Your task to perform on an android device: make emails show in primary in the gmail app Image 0: 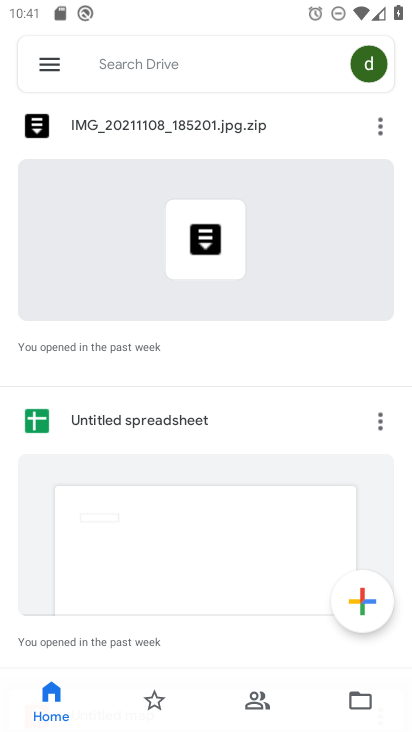
Step 0: press home button
Your task to perform on an android device: make emails show in primary in the gmail app Image 1: 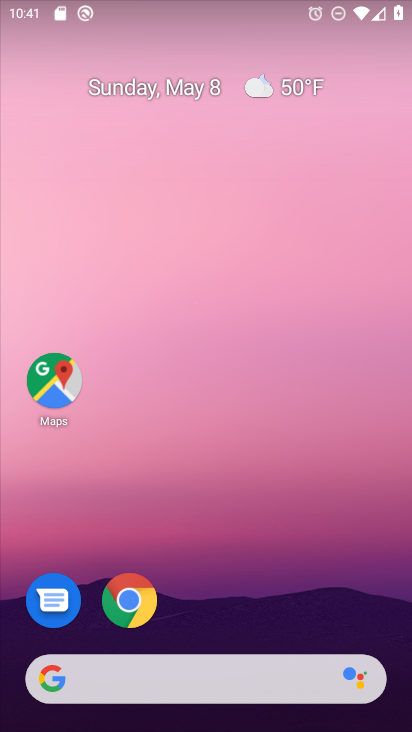
Step 1: drag from (230, 710) to (240, 146)
Your task to perform on an android device: make emails show in primary in the gmail app Image 2: 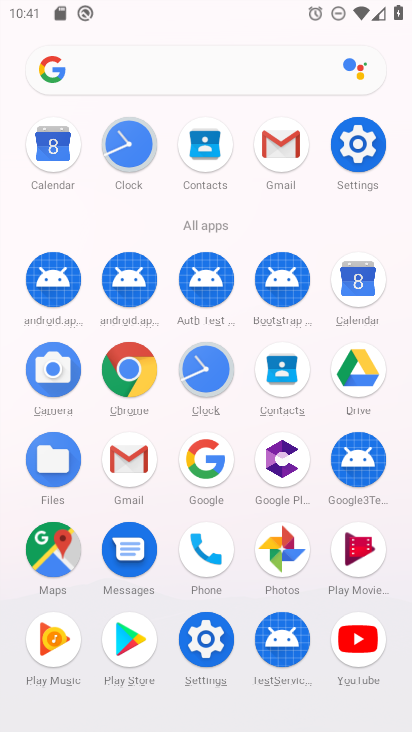
Step 2: click (134, 456)
Your task to perform on an android device: make emails show in primary in the gmail app Image 3: 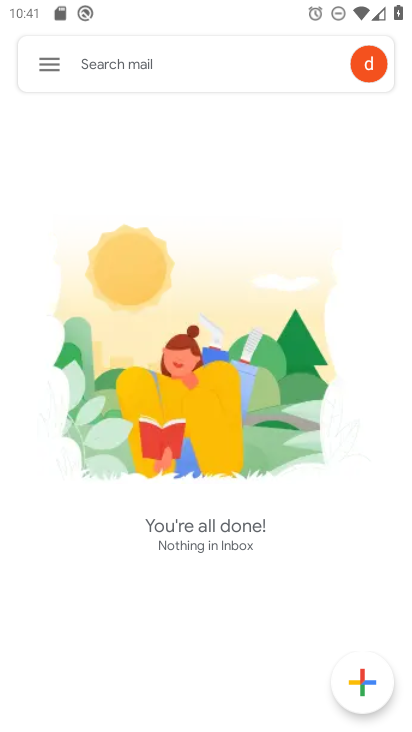
Step 3: click (49, 66)
Your task to perform on an android device: make emails show in primary in the gmail app Image 4: 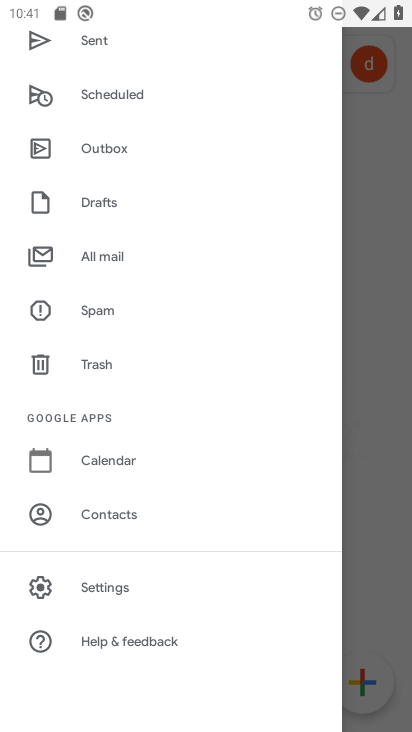
Step 4: click (116, 585)
Your task to perform on an android device: make emails show in primary in the gmail app Image 5: 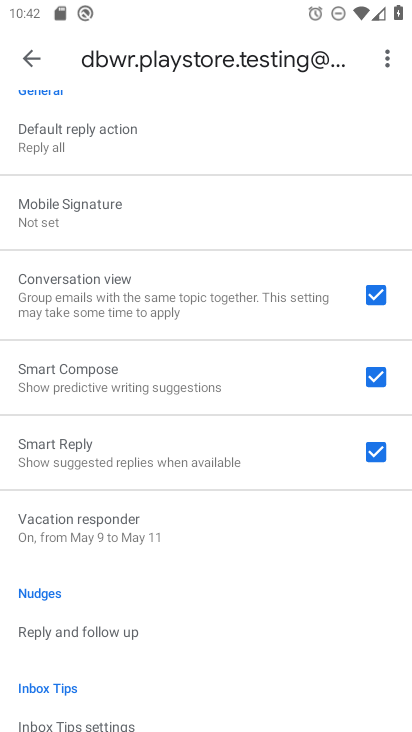
Step 5: drag from (199, 162) to (184, 561)
Your task to perform on an android device: make emails show in primary in the gmail app Image 6: 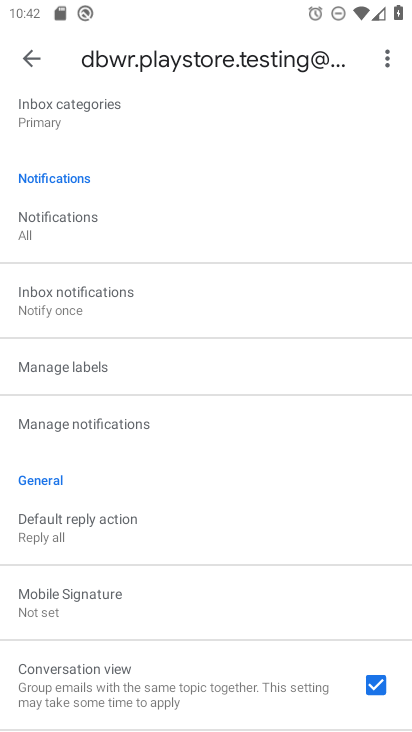
Step 6: click (77, 102)
Your task to perform on an android device: make emails show in primary in the gmail app Image 7: 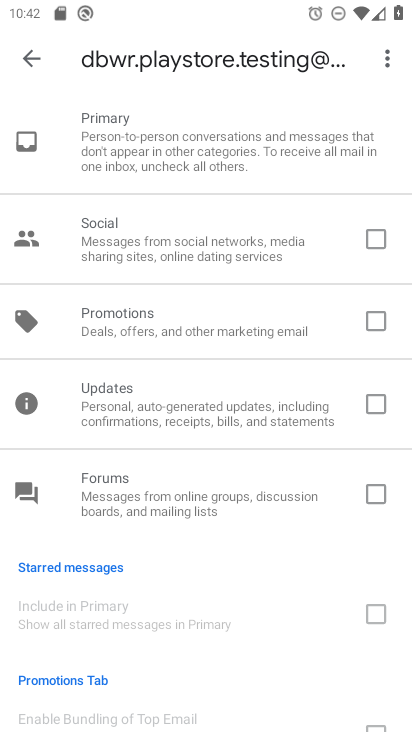
Step 7: click (33, 60)
Your task to perform on an android device: make emails show in primary in the gmail app Image 8: 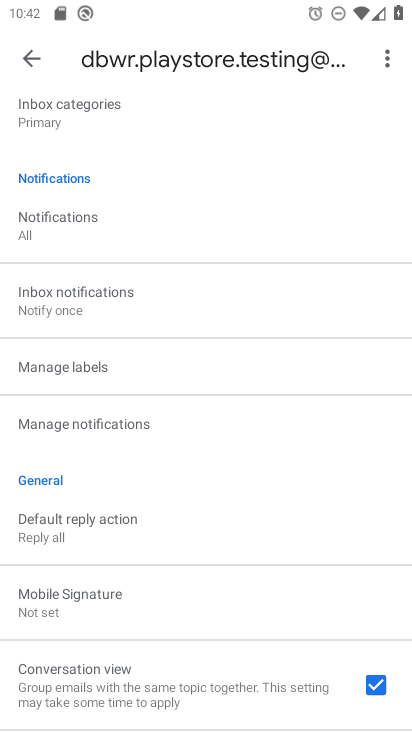
Step 8: task complete